Your task to perform on an android device: Go to Android settings Image 0: 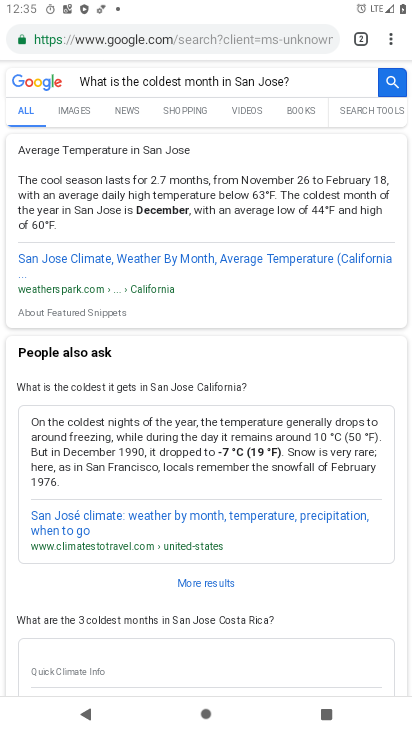
Step 0: press home button
Your task to perform on an android device: Go to Android settings Image 1: 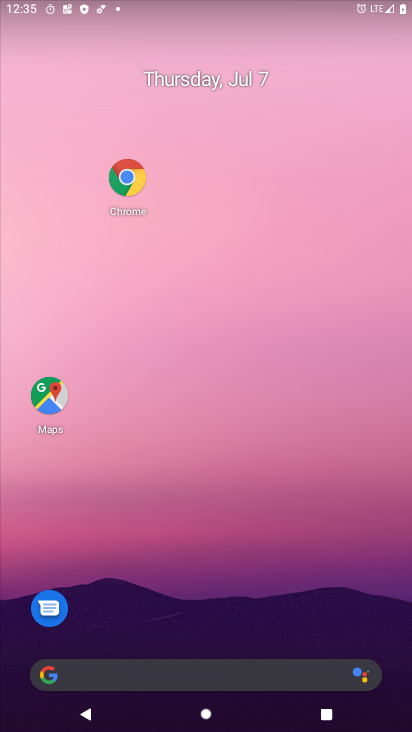
Step 1: drag from (243, 642) to (294, 208)
Your task to perform on an android device: Go to Android settings Image 2: 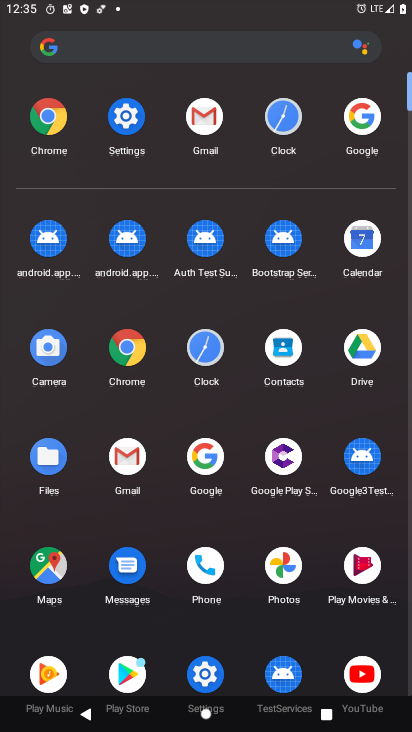
Step 2: click (140, 116)
Your task to perform on an android device: Go to Android settings Image 3: 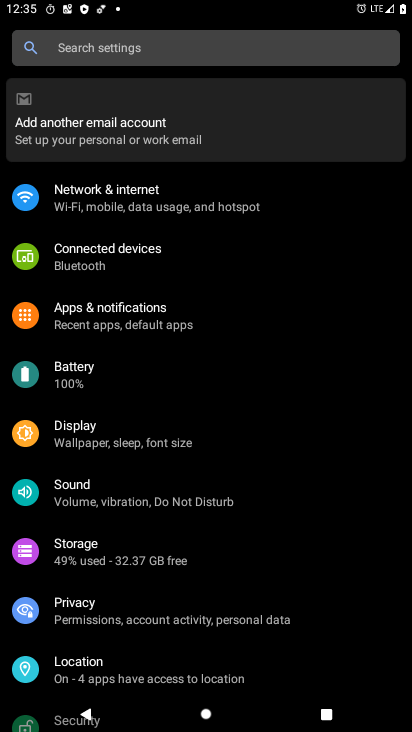
Step 3: task complete